Your task to perform on an android device: Open Google Chrome and click the shortcut for Amazon.com Image 0: 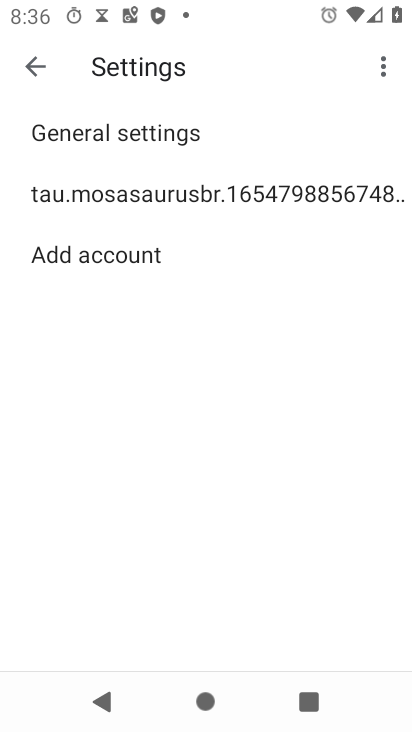
Step 0: press home button
Your task to perform on an android device: Open Google Chrome and click the shortcut for Amazon.com Image 1: 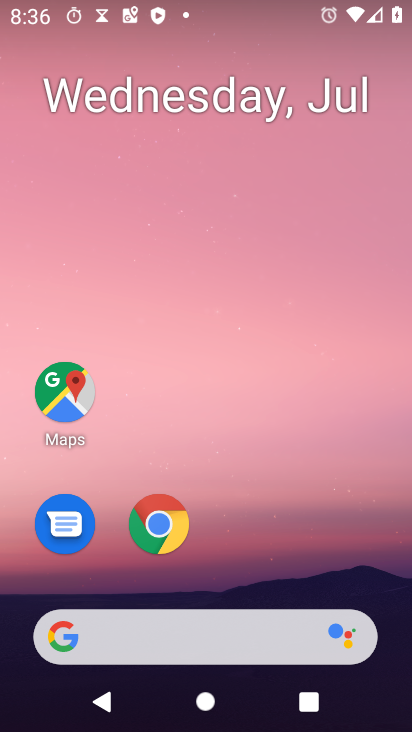
Step 1: click (158, 535)
Your task to perform on an android device: Open Google Chrome and click the shortcut for Amazon.com Image 2: 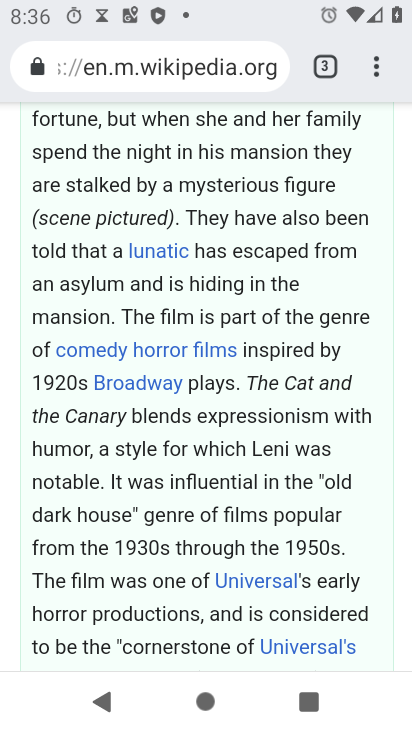
Step 2: drag from (371, 72) to (228, 139)
Your task to perform on an android device: Open Google Chrome and click the shortcut for Amazon.com Image 3: 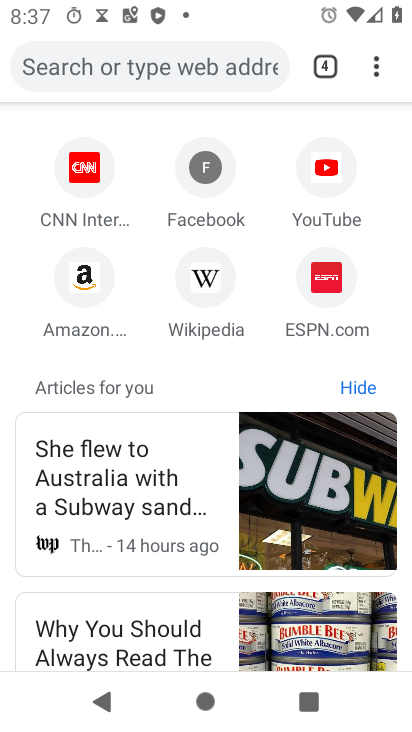
Step 3: click (92, 295)
Your task to perform on an android device: Open Google Chrome and click the shortcut for Amazon.com Image 4: 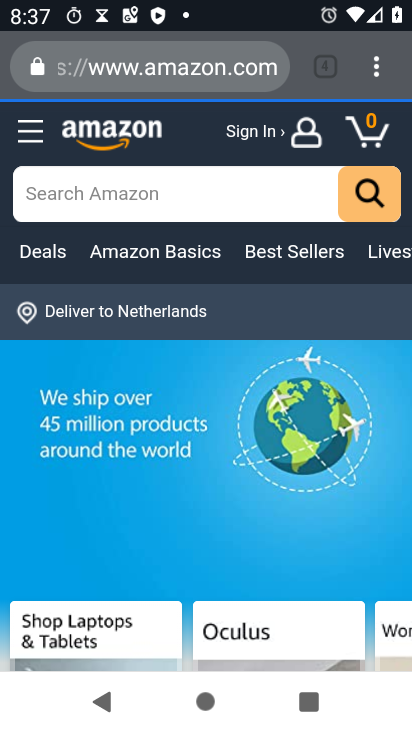
Step 4: task complete